Your task to perform on an android device: open chrome privacy settings Image 0: 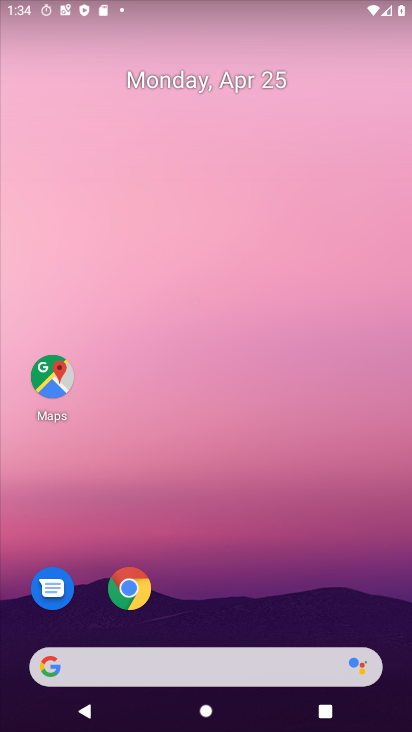
Step 0: click (149, 589)
Your task to perform on an android device: open chrome privacy settings Image 1: 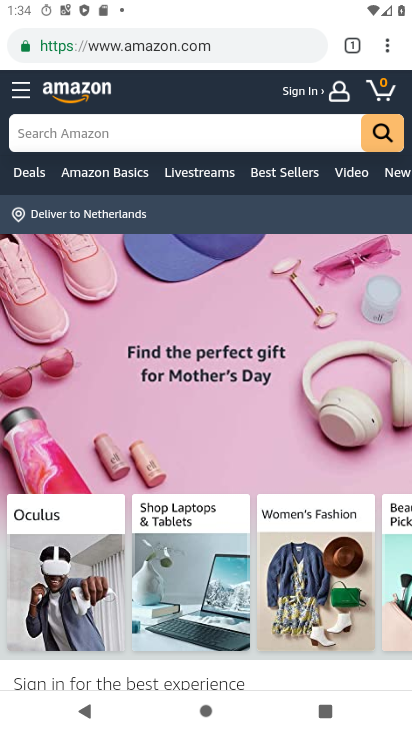
Step 1: click (383, 48)
Your task to perform on an android device: open chrome privacy settings Image 2: 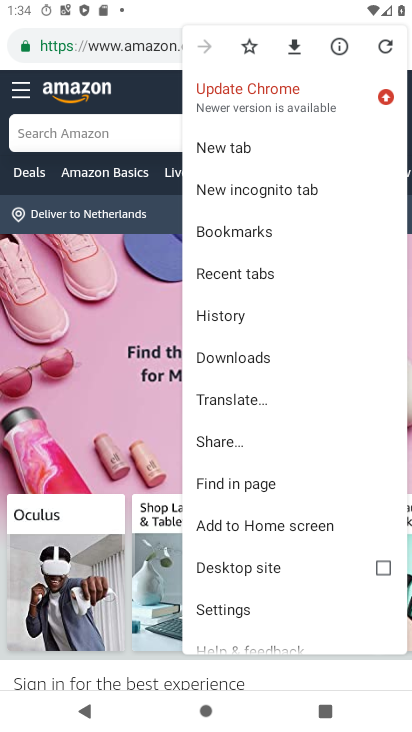
Step 2: click (253, 605)
Your task to perform on an android device: open chrome privacy settings Image 3: 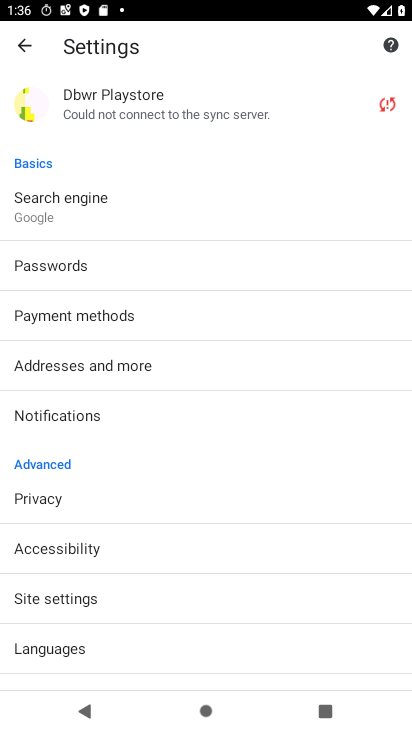
Step 3: click (93, 651)
Your task to perform on an android device: open chrome privacy settings Image 4: 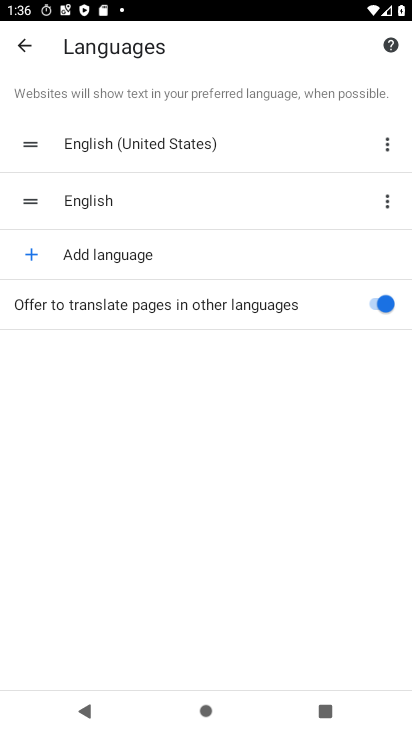
Step 4: press back button
Your task to perform on an android device: open chrome privacy settings Image 5: 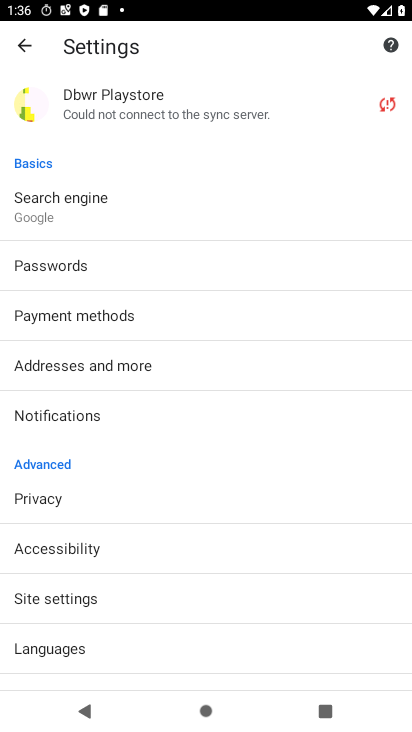
Step 5: click (119, 505)
Your task to perform on an android device: open chrome privacy settings Image 6: 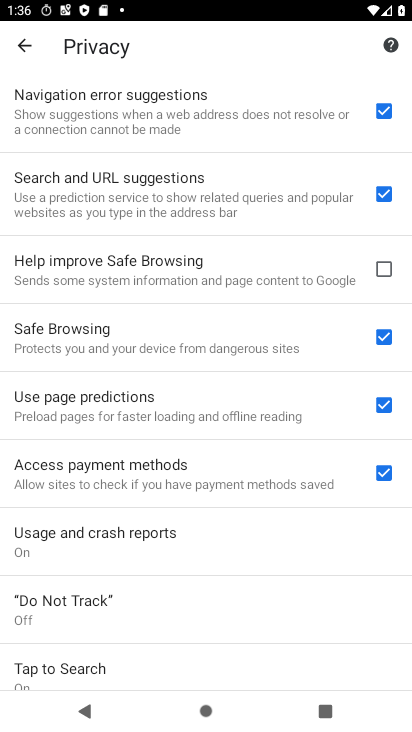
Step 6: task complete